Your task to perform on an android device: toggle pop-ups in chrome Image 0: 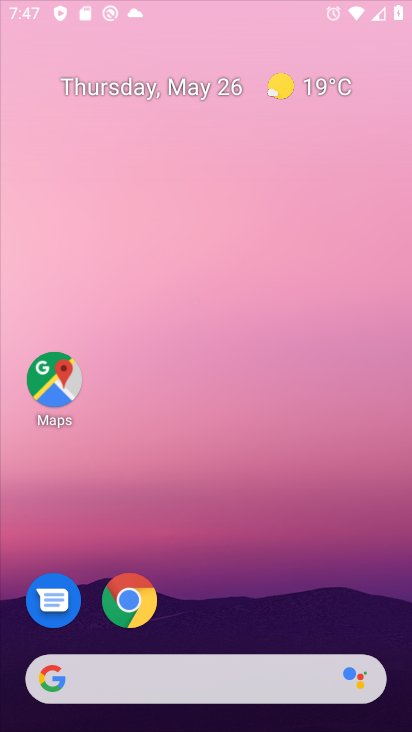
Step 0: press home button
Your task to perform on an android device: toggle pop-ups in chrome Image 1: 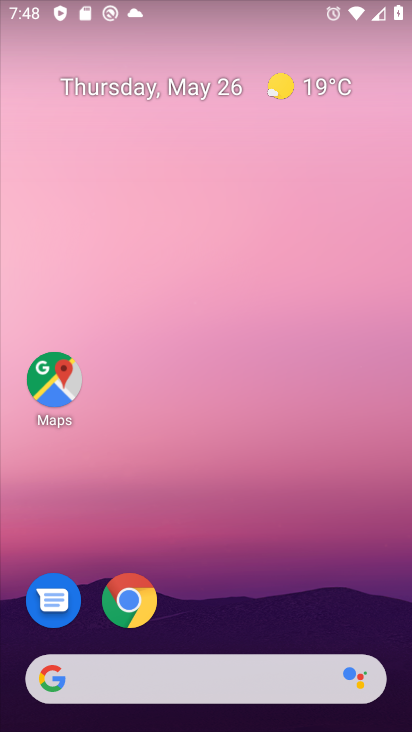
Step 1: click (134, 607)
Your task to perform on an android device: toggle pop-ups in chrome Image 2: 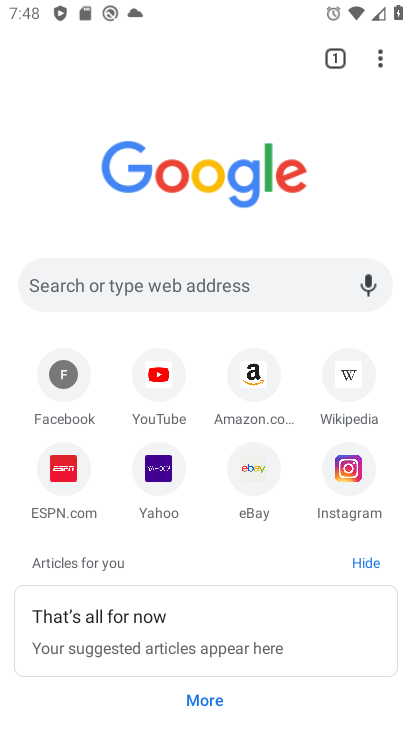
Step 2: drag from (381, 55) to (154, 501)
Your task to perform on an android device: toggle pop-ups in chrome Image 3: 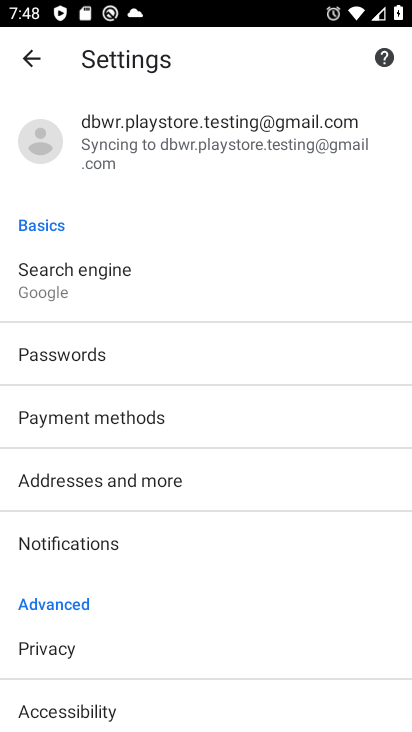
Step 3: drag from (250, 698) to (274, 354)
Your task to perform on an android device: toggle pop-ups in chrome Image 4: 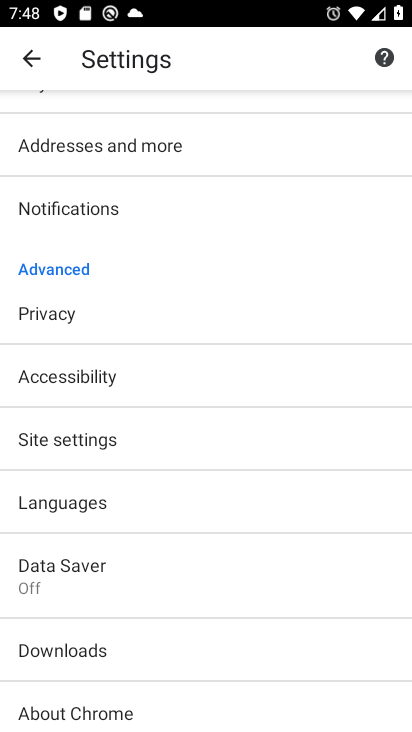
Step 4: click (66, 441)
Your task to perform on an android device: toggle pop-ups in chrome Image 5: 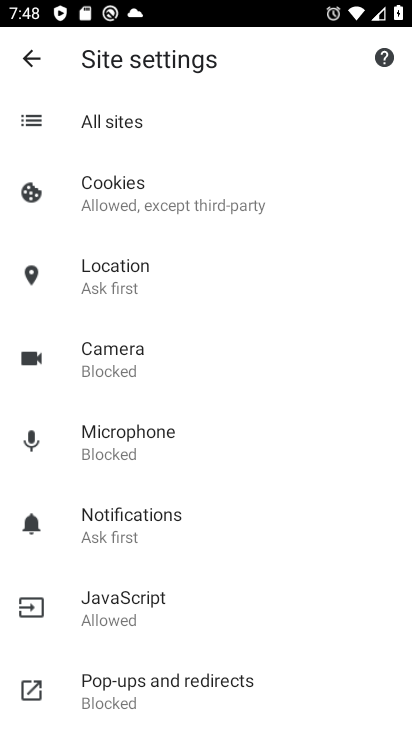
Step 5: click (183, 685)
Your task to perform on an android device: toggle pop-ups in chrome Image 6: 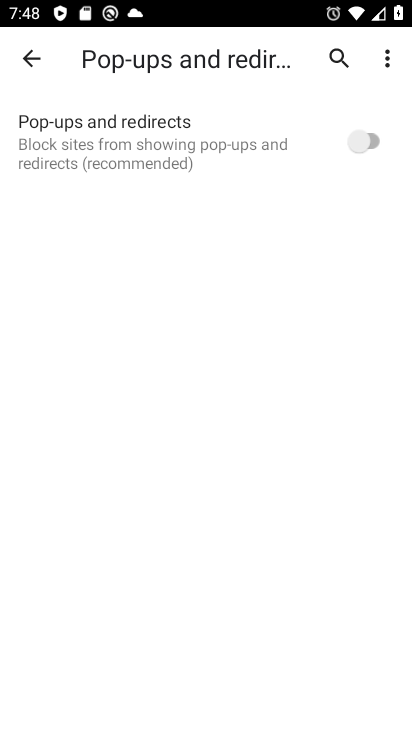
Step 6: click (362, 141)
Your task to perform on an android device: toggle pop-ups in chrome Image 7: 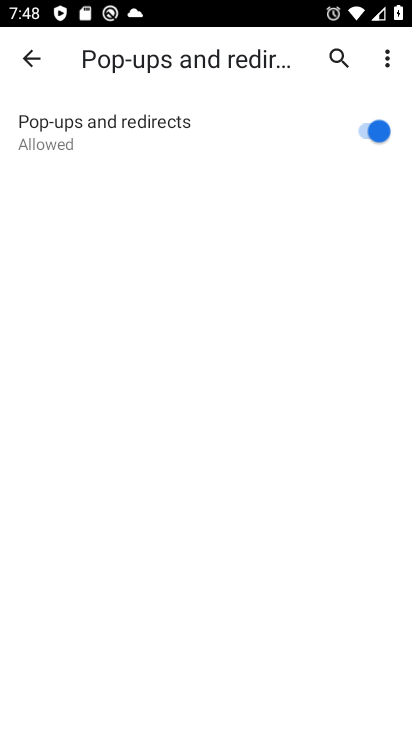
Step 7: task complete